Your task to perform on an android device: turn on data saver in the chrome app Image 0: 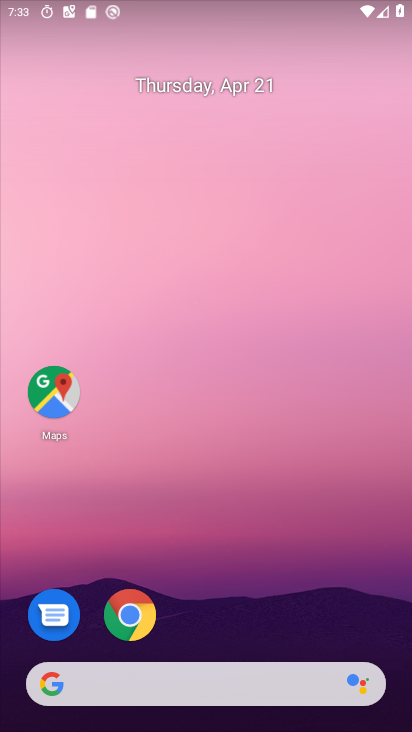
Step 0: drag from (176, 683) to (330, 103)
Your task to perform on an android device: turn on data saver in the chrome app Image 1: 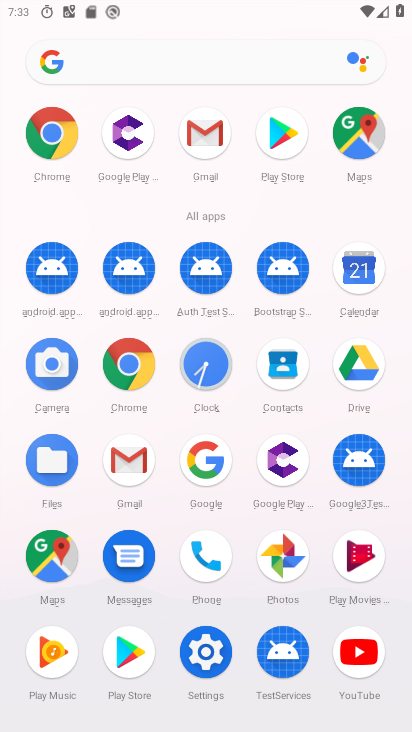
Step 1: click (129, 364)
Your task to perform on an android device: turn on data saver in the chrome app Image 2: 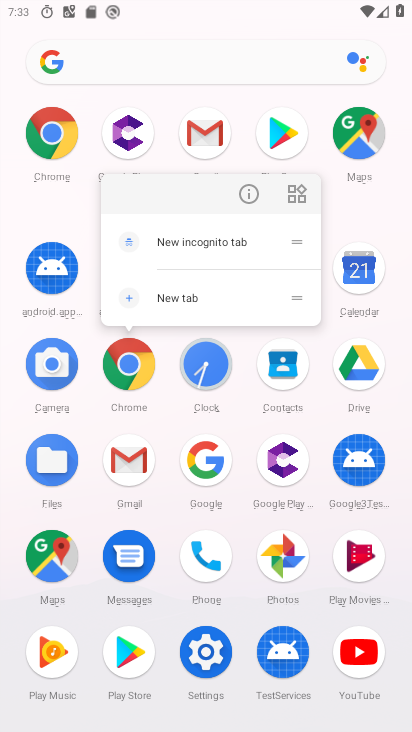
Step 2: click (129, 372)
Your task to perform on an android device: turn on data saver in the chrome app Image 3: 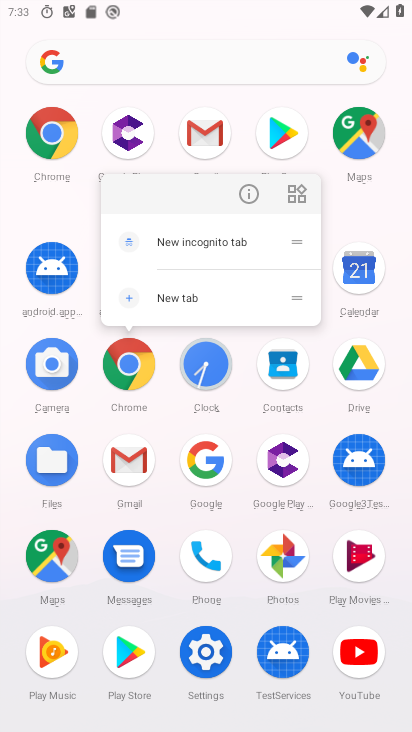
Step 3: click (130, 381)
Your task to perform on an android device: turn on data saver in the chrome app Image 4: 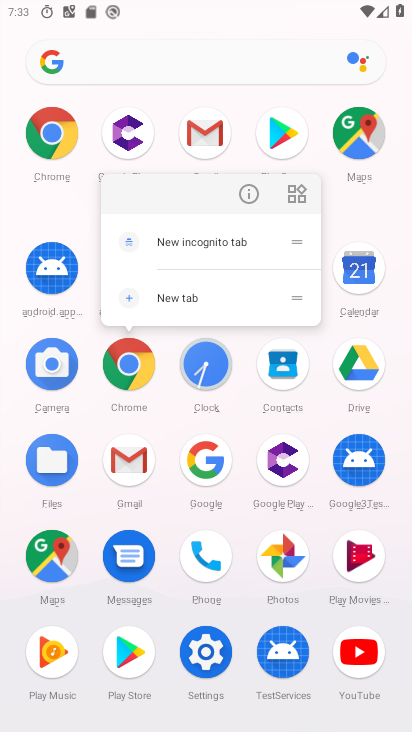
Step 4: click (130, 372)
Your task to perform on an android device: turn on data saver in the chrome app Image 5: 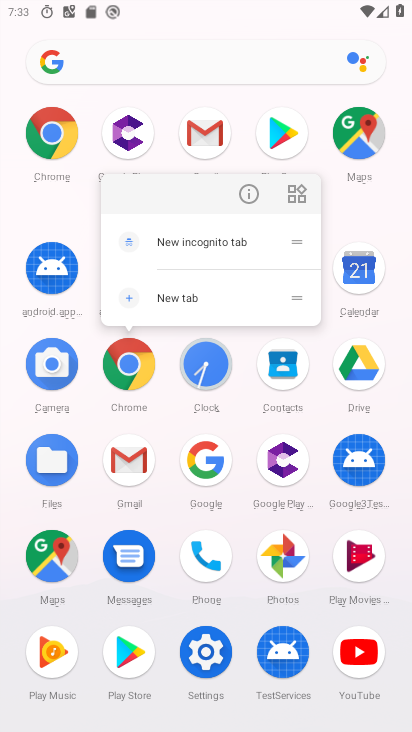
Step 5: click (126, 375)
Your task to perform on an android device: turn on data saver in the chrome app Image 6: 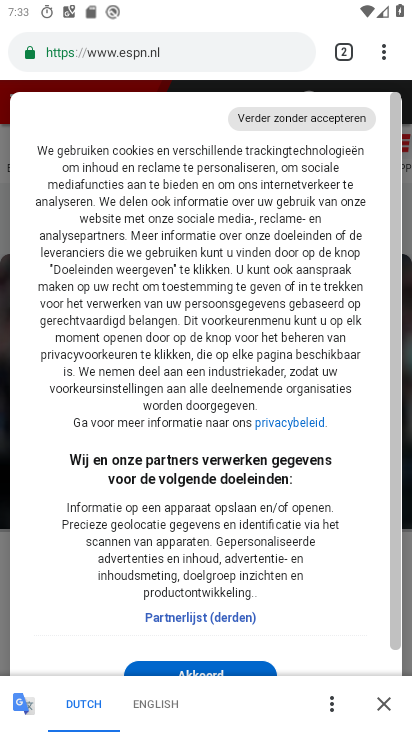
Step 6: click (373, 59)
Your task to perform on an android device: turn on data saver in the chrome app Image 7: 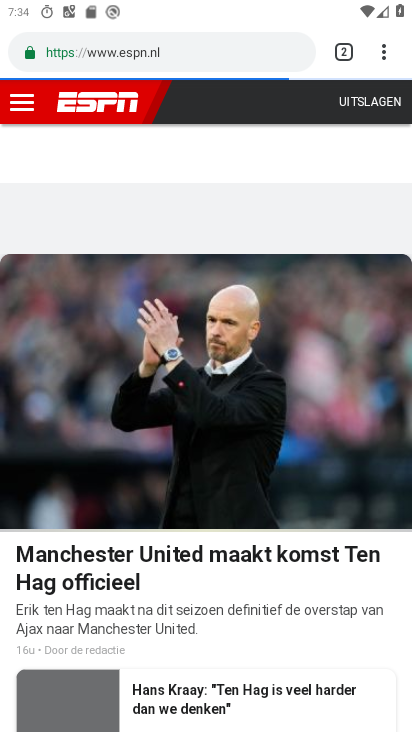
Step 7: click (378, 62)
Your task to perform on an android device: turn on data saver in the chrome app Image 8: 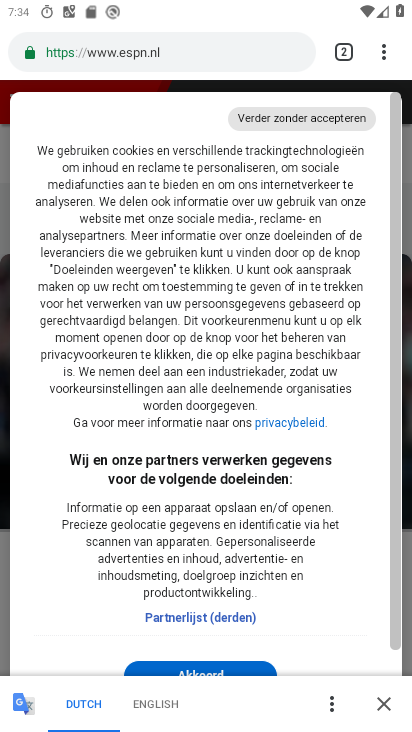
Step 8: click (373, 62)
Your task to perform on an android device: turn on data saver in the chrome app Image 9: 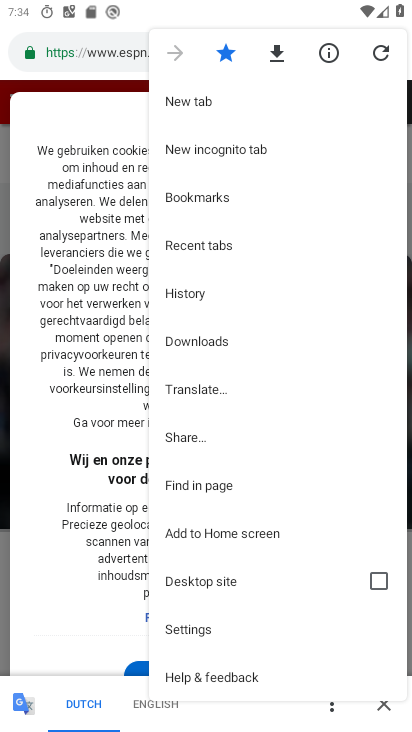
Step 9: click (191, 631)
Your task to perform on an android device: turn on data saver in the chrome app Image 10: 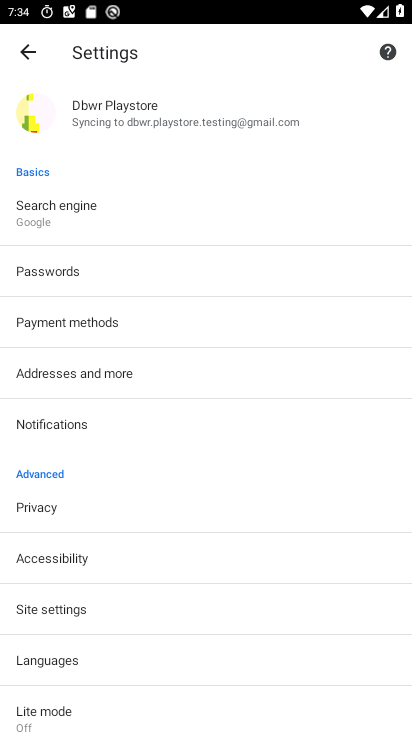
Step 10: drag from (144, 630) to (298, 297)
Your task to perform on an android device: turn on data saver in the chrome app Image 11: 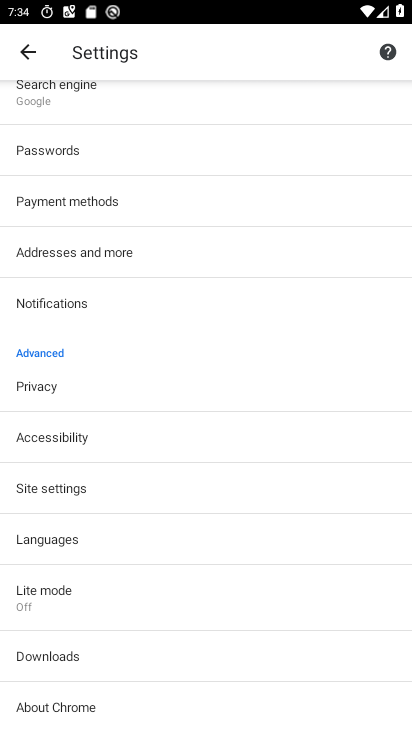
Step 11: click (58, 607)
Your task to perform on an android device: turn on data saver in the chrome app Image 12: 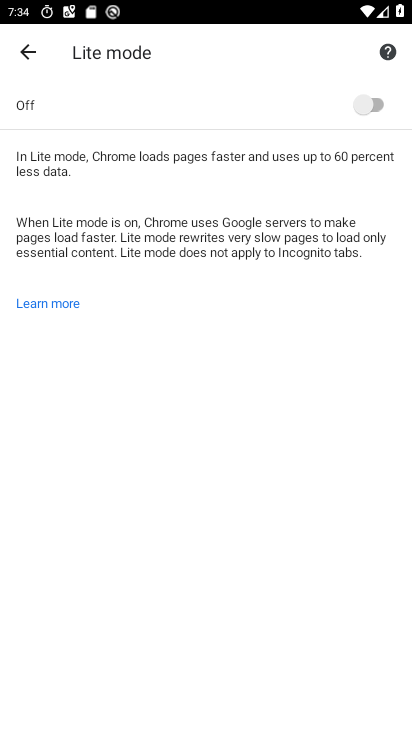
Step 12: click (374, 100)
Your task to perform on an android device: turn on data saver in the chrome app Image 13: 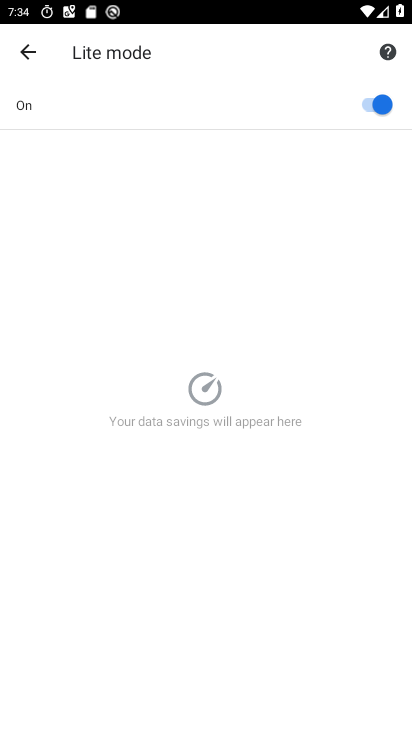
Step 13: task complete